Your task to perform on an android device: change the clock style Image 0: 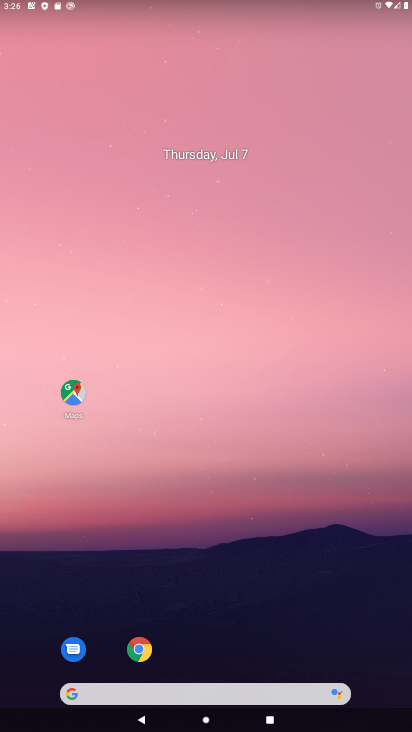
Step 0: drag from (185, 654) to (302, 51)
Your task to perform on an android device: change the clock style Image 1: 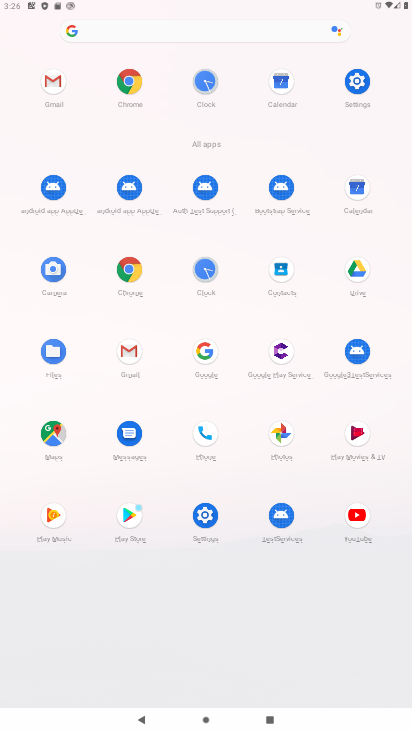
Step 1: click (207, 263)
Your task to perform on an android device: change the clock style Image 2: 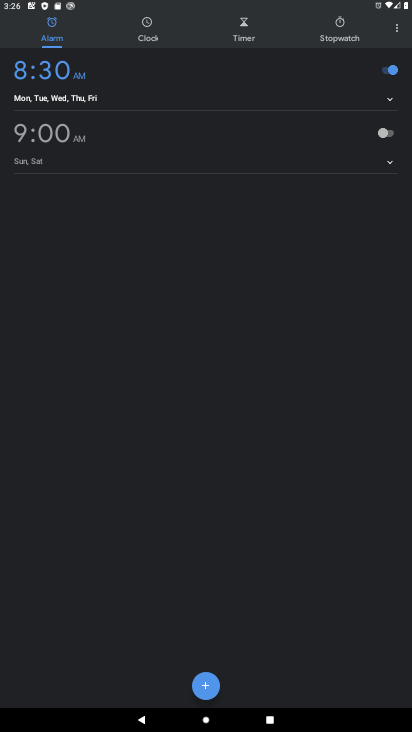
Step 2: click (396, 27)
Your task to perform on an android device: change the clock style Image 3: 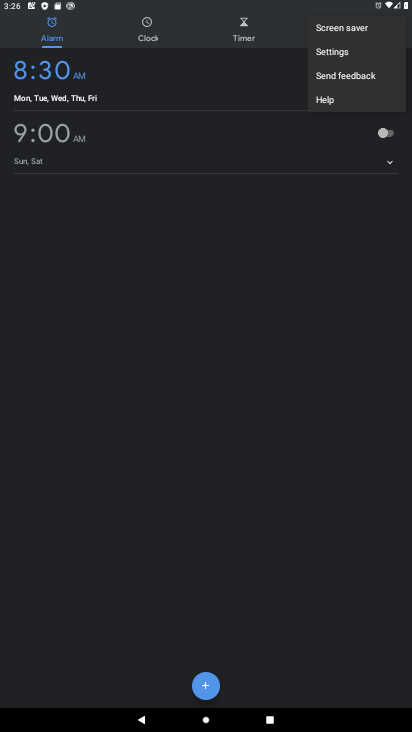
Step 3: click (347, 51)
Your task to perform on an android device: change the clock style Image 4: 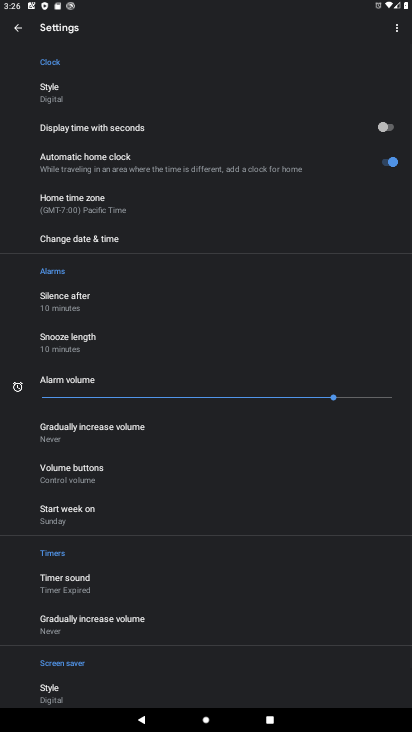
Step 4: click (43, 92)
Your task to perform on an android device: change the clock style Image 5: 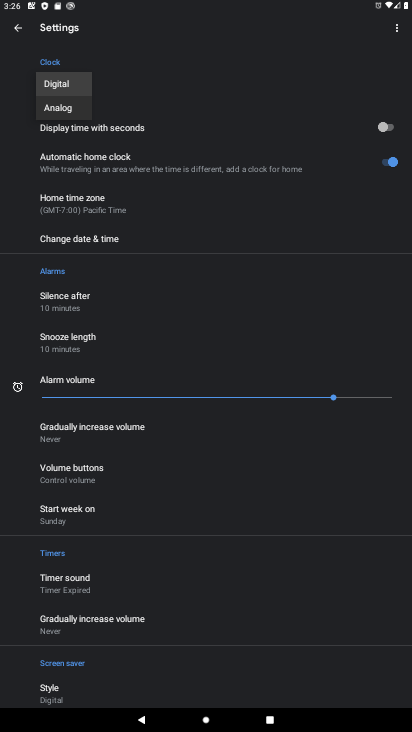
Step 5: click (60, 108)
Your task to perform on an android device: change the clock style Image 6: 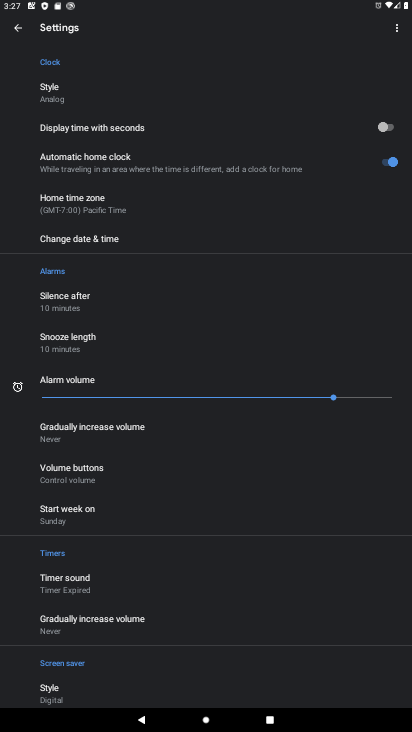
Step 6: task complete